Your task to perform on an android device: Open the map Image 0: 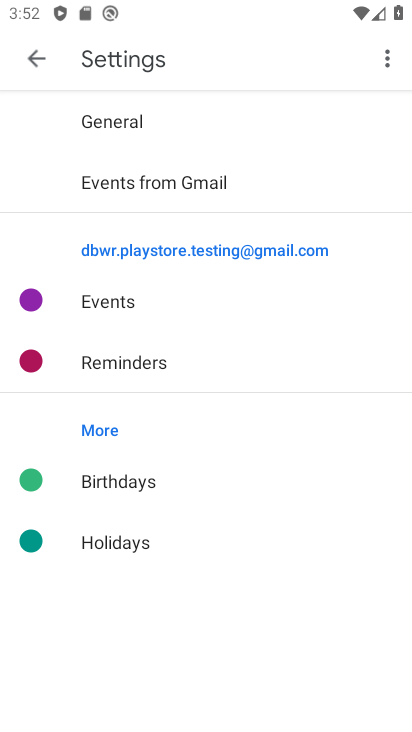
Step 0: press home button
Your task to perform on an android device: Open the map Image 1: 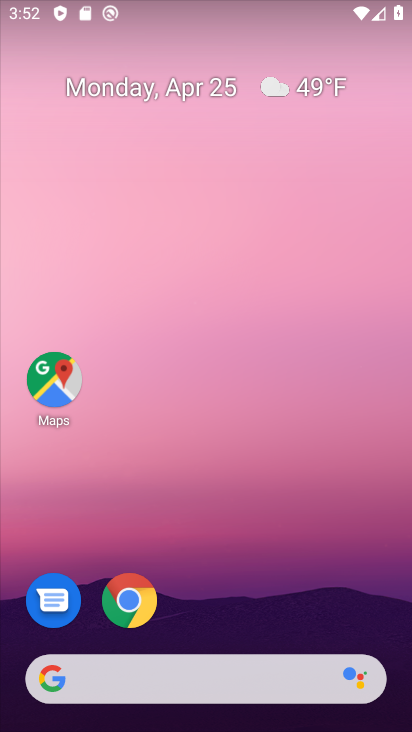
Step 1: click (57, 378)
Your task to perform on an android device: Open the map Image 2: 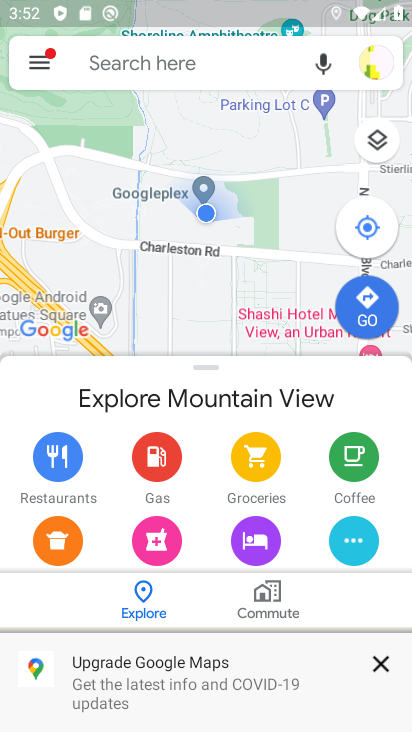
Step 2: task complete